Your task to perform on an android device: Open the web browser Image 0: 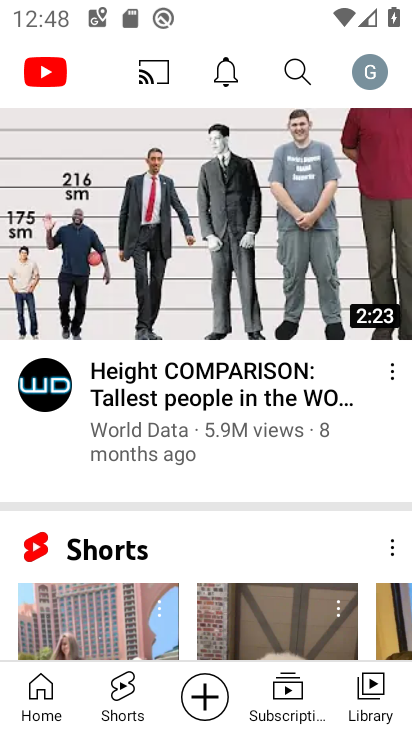
Step 0: press home button
Your task to perform on an android device: Open the web browser Image 1: 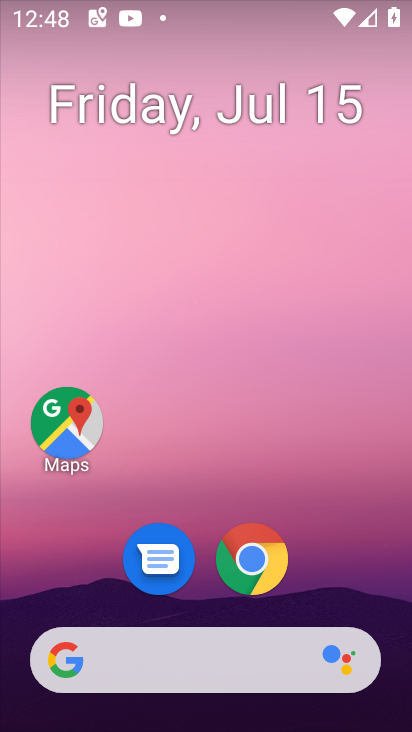
Step 1: drag from (348, 583) to (336, 225)
Your task to perform on an android device: Open the web browser Image 2: 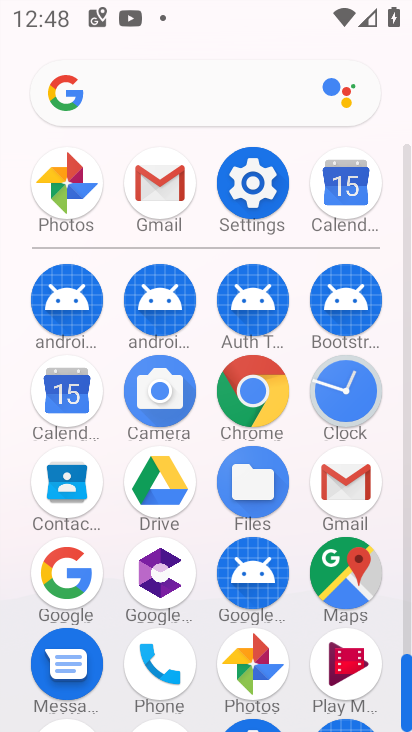
Step 2: click (255, 399)
Your task to perform on an android device: Open the web browser Image 3: 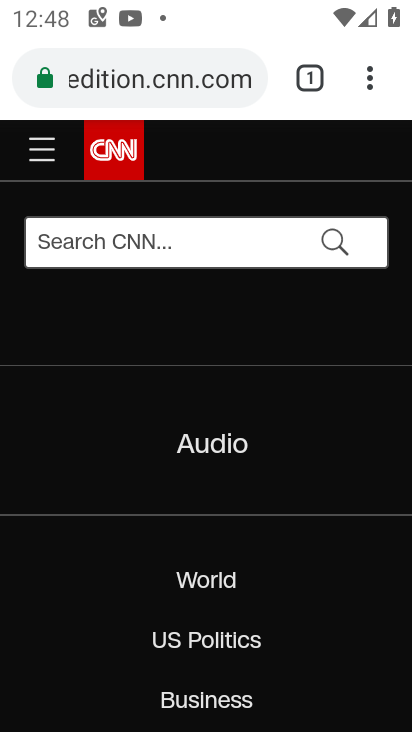
Step 3: task complete